Your task to perform on an android device: find which apps use the phone's location Image 0: 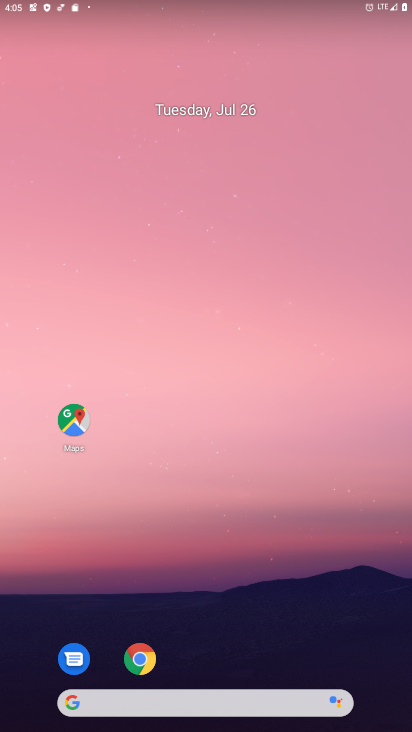
Step 0: press home button
Your task to perform on an android device: find which apps use the phone's location Image 1: 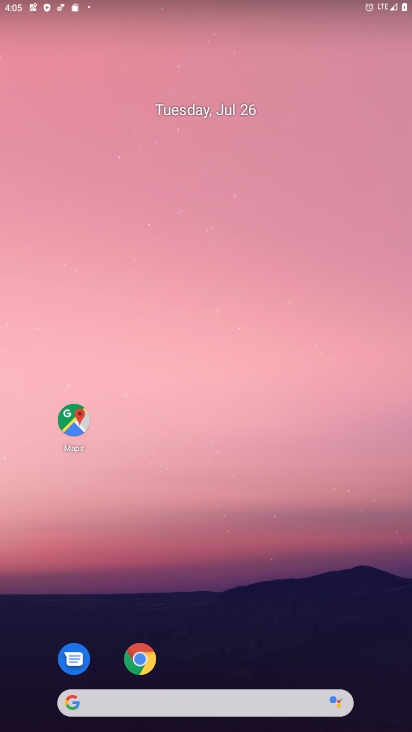
Step 1: drag from (245, 667) to (214, 220)
Your task to perform on an android device: find which apps use the phone's location Image 2: 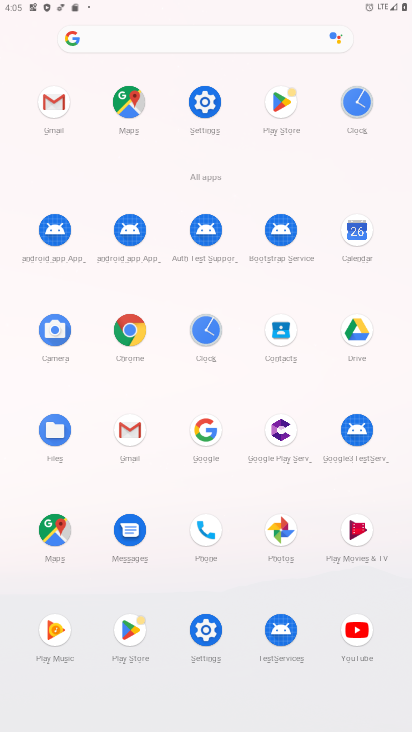
Step 2: click (207, 106)
Your task to perform on an android device: find which apps use the phone's location Image 3: 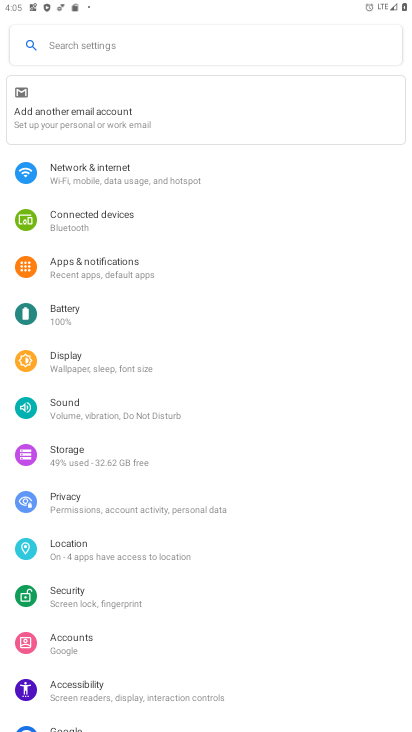
Step 3: click (74, 554)
Your task to perform on an android device: find which apps use the phone's location Image 4: 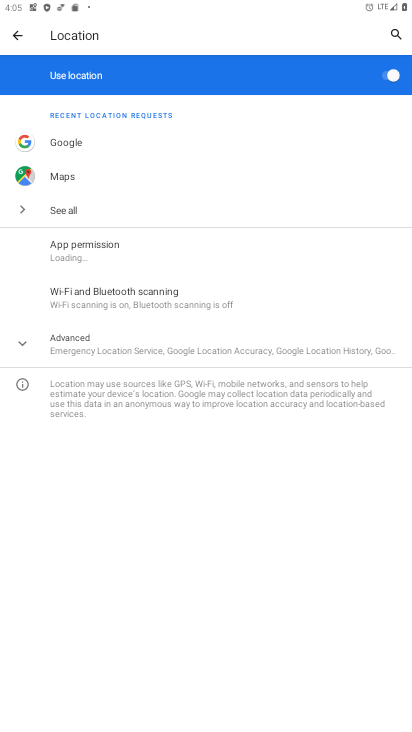
Step 4: click (60, 246)
Your task to perform on an android device: find which apps use the phone's location Image 5: 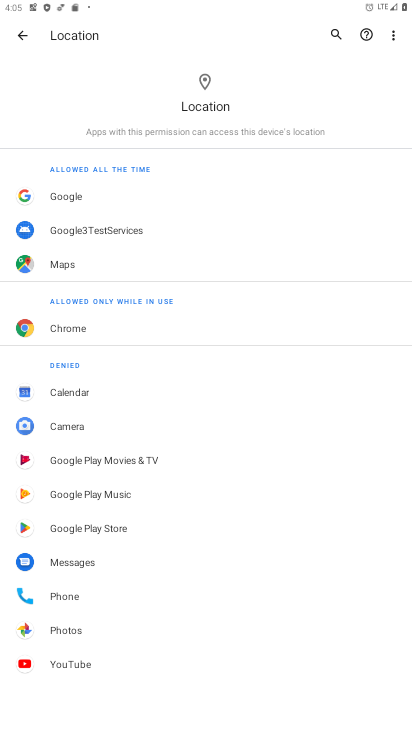
Step 5: task complete